Your task to perform on an android device: allow cookies in the chrome app Image 0: 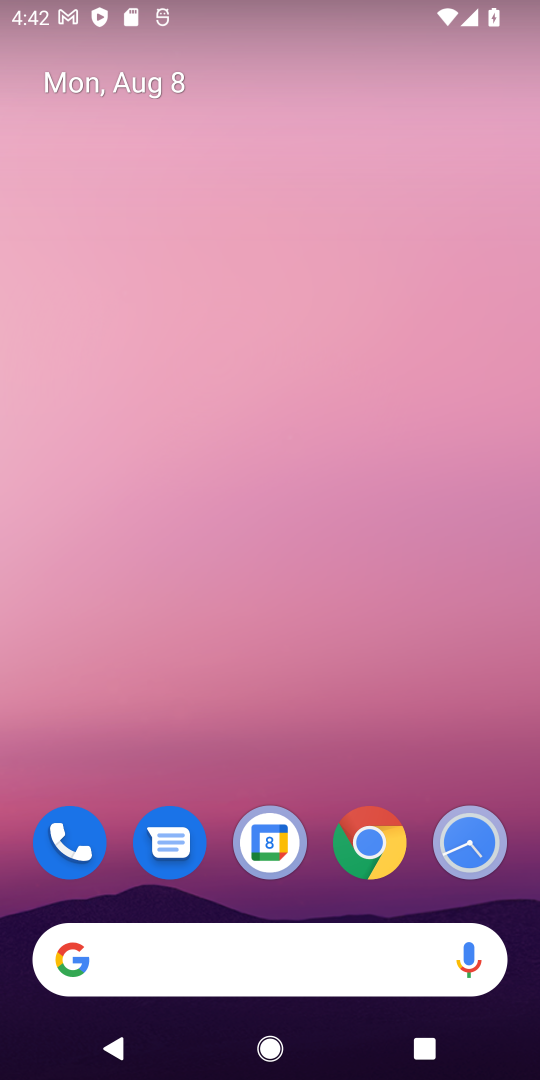
Step 0: click (355, 857)
Your task to perform on an android device: allow cookies in the chrome app Image 1: 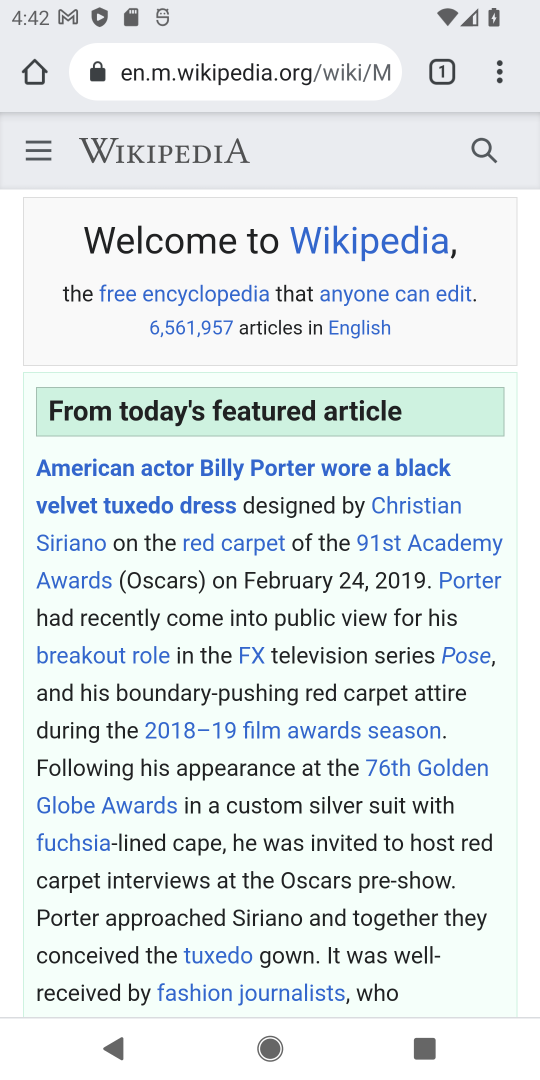
Step 1: click (509, 70)
Your task to perform on an android device: allow cookies in the chrome app Image 2: 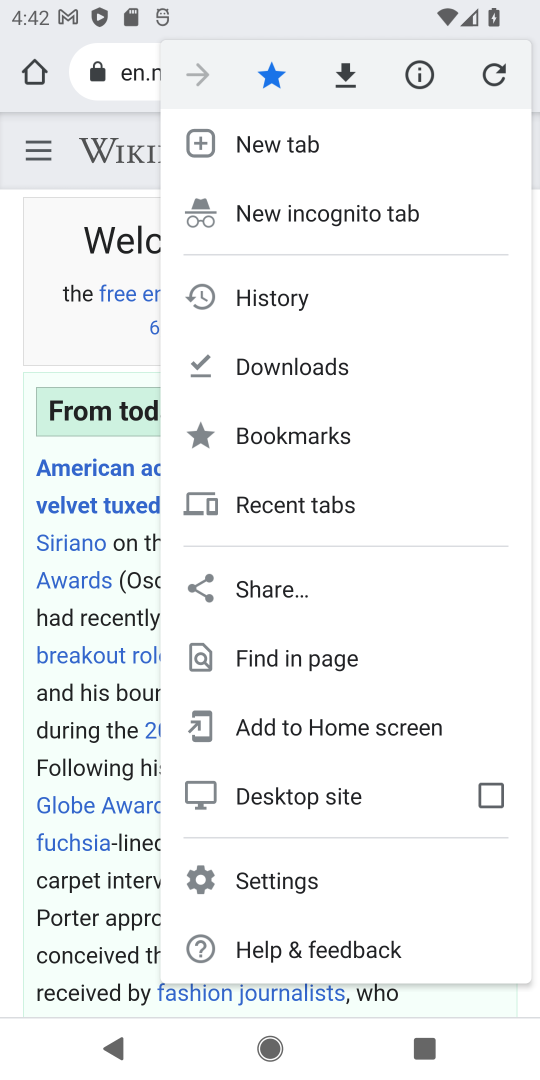
Step 2: click (296, 874)
Your task to perform on an android device: allow cookies in the chrome app Image 3: 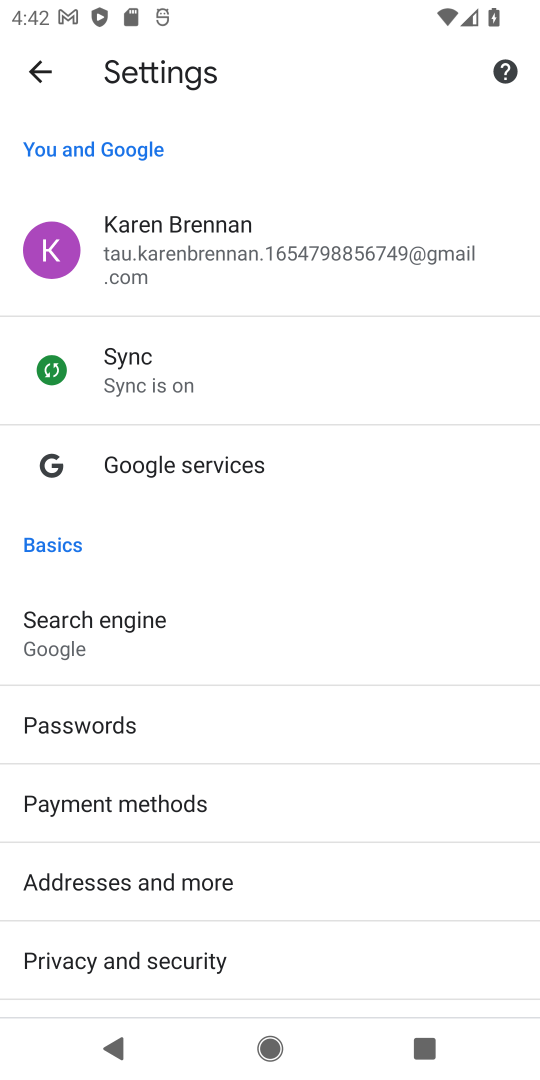
Step 3: drag from (258, 844) to (303, 446)
Your task to perform on an android device: allow cookies in the chrome app Image 4: 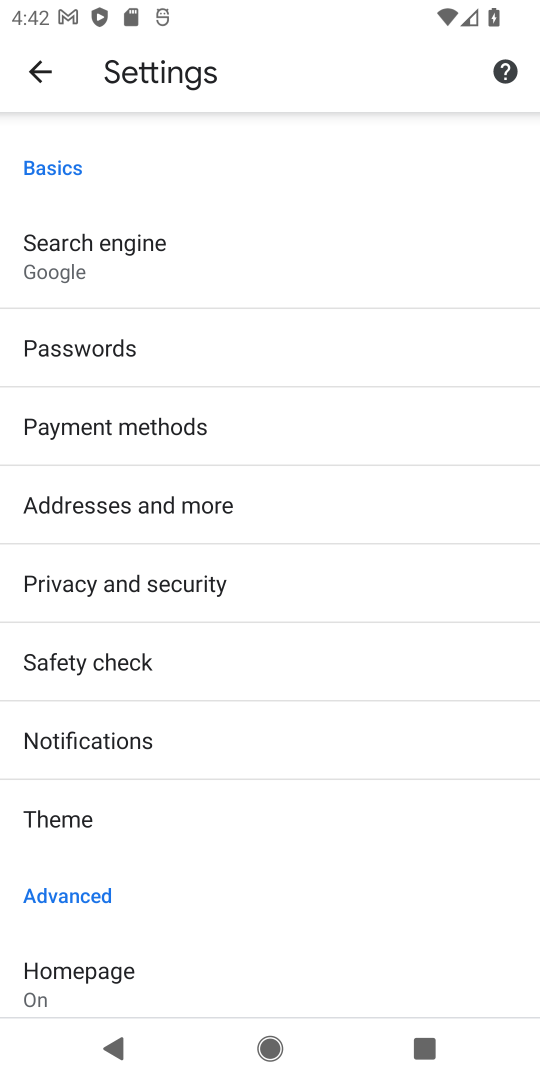
Step 4: drag from (137, 899) to (137, 451)
Your task to perform on an android device: allow cookies in the chrome app Image 5: 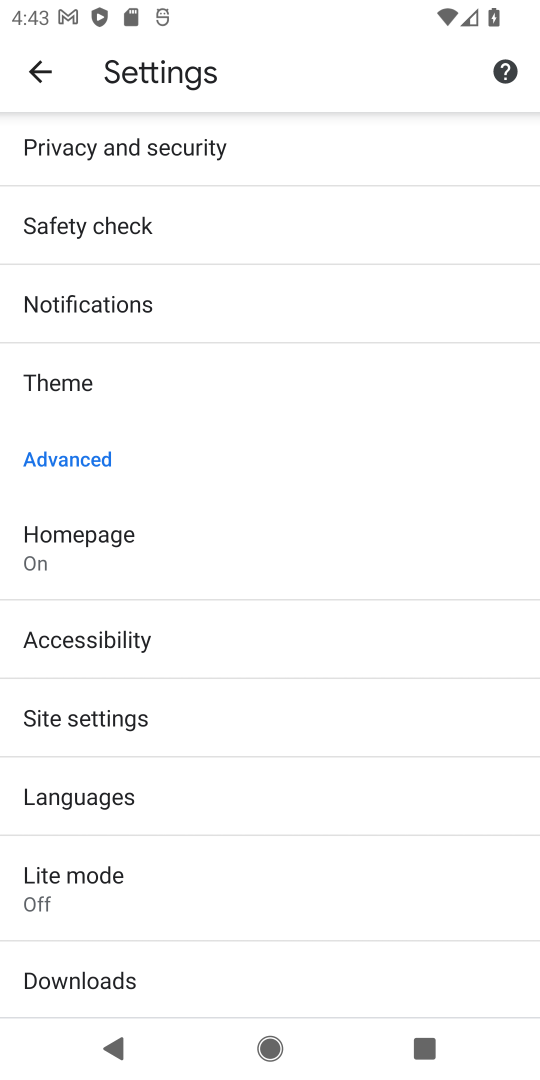
Step 5: click (120, 718)
Your task to perform on an android device: allow cookies in the chrome app Image 6: 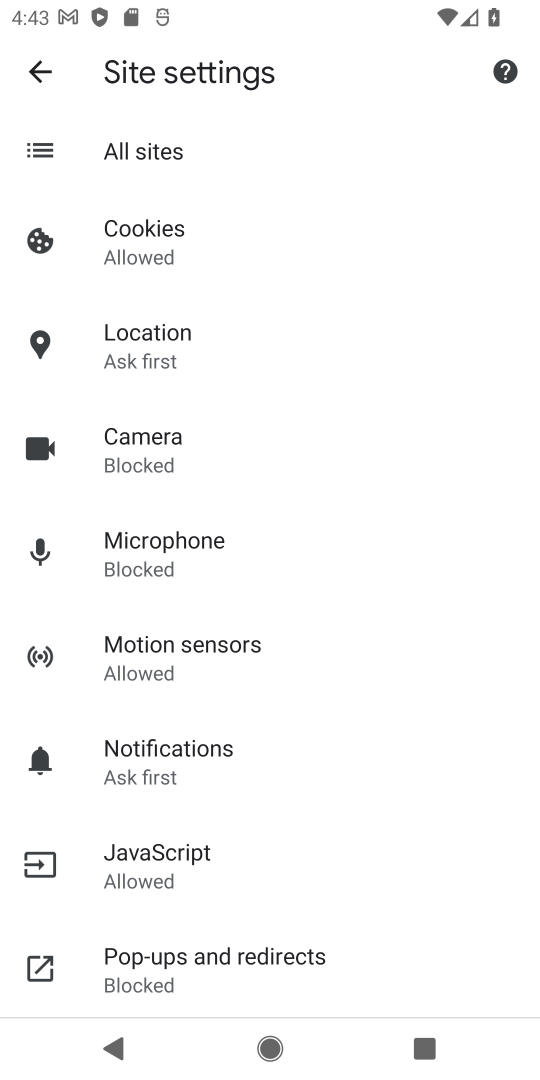
Step 6: click (224, 236)
Your task to perform on an android device: allow cookies in the chrome app Image 7: 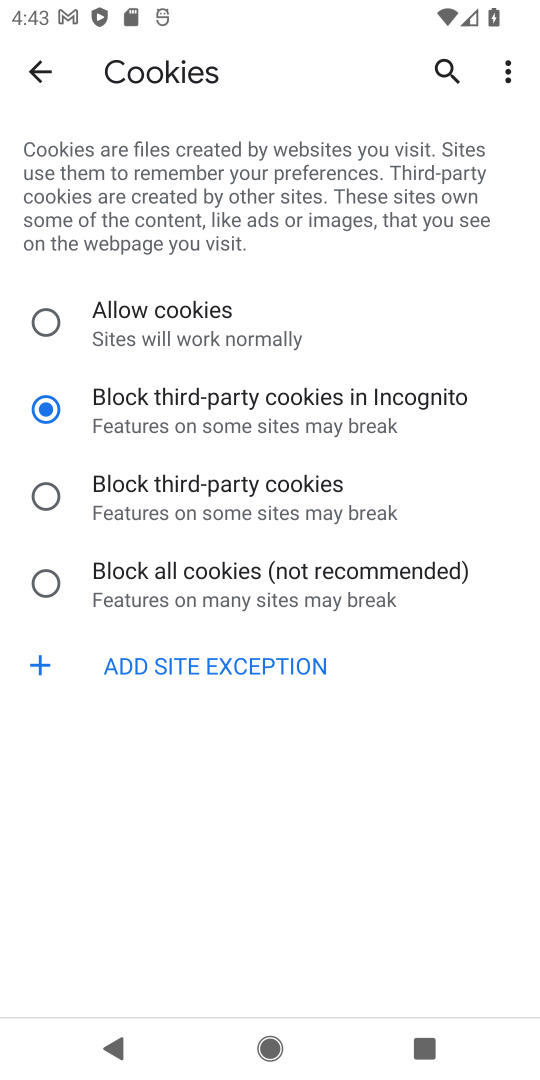
Step 7: task complete